Your task to perform on an android device: Show me popular videos on Youtube Image 0: 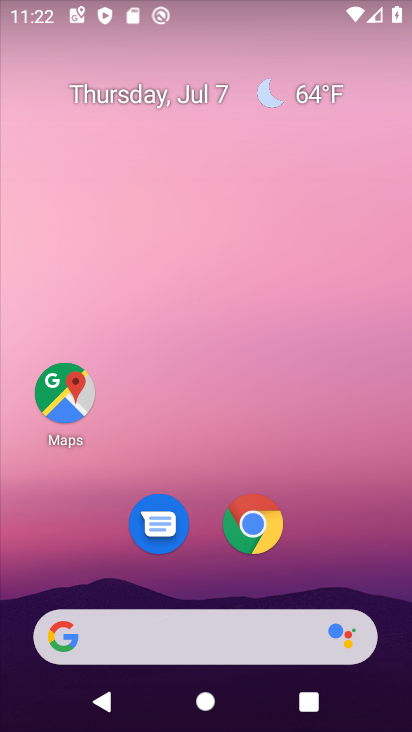
Step 0: drag from (331, 517) to (337, 34)
Your task to perform on an android device: Show me popular videos on Youtube Image 1: 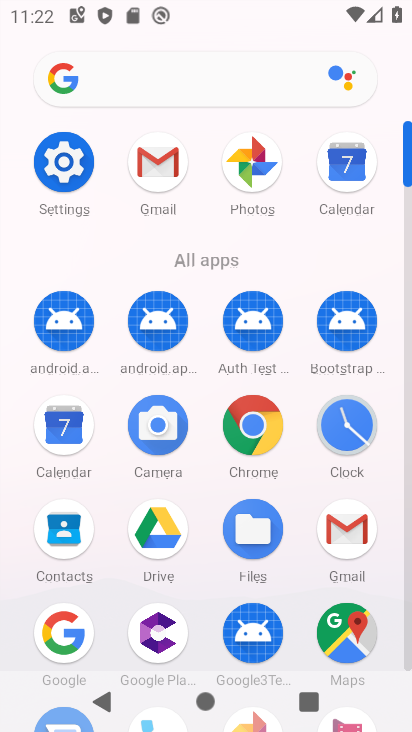
Step 1: drag from (202, 470) to (221, 102)
Your task to perform on an android device: Show me popular videos on Youtube Image 2: 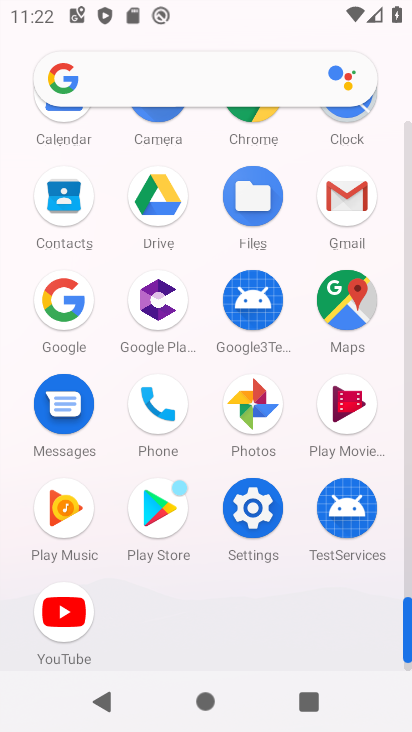
Step 2: click (80, 607)
Your task to perform on an android device: Show me popular videos on Youtube Image 3: 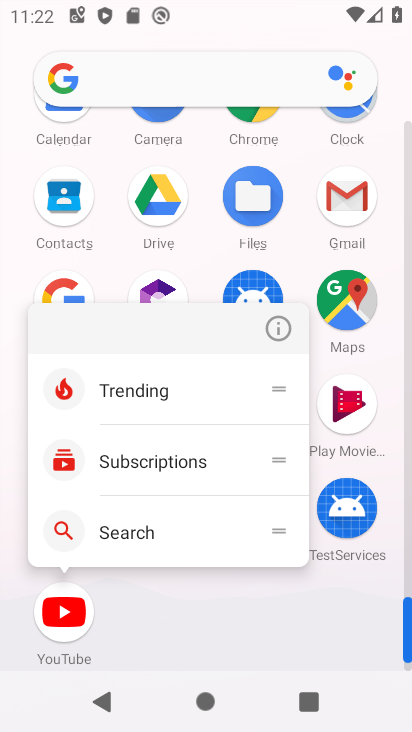
Step 3: click (76, 606)
Your task to perform on an android device: Show me popular videos on Youtube Image 4: 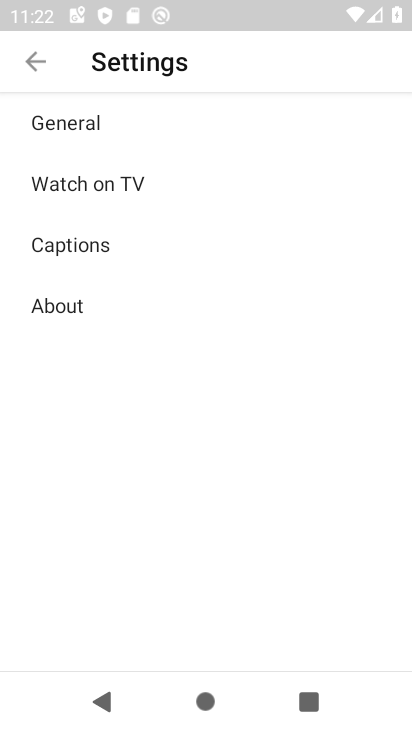
Step 4: click (42, 62)
Your task to perform on an android device: Show me popular videos on Youtube Image 5: 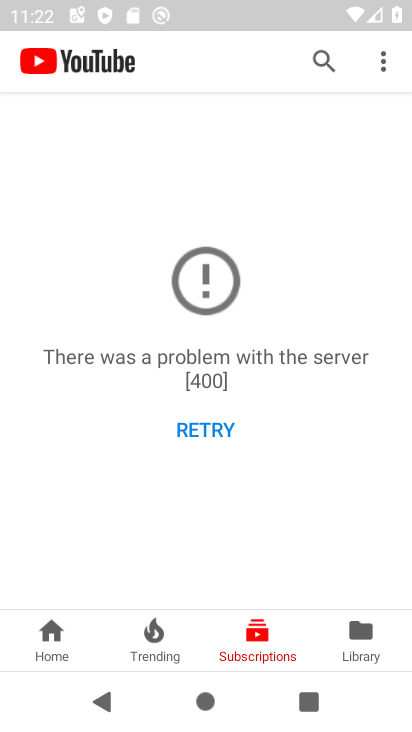
Step 5: click (47, 641)
Your task to perform on an android device: Show me popular videos on Youtube Image 6: 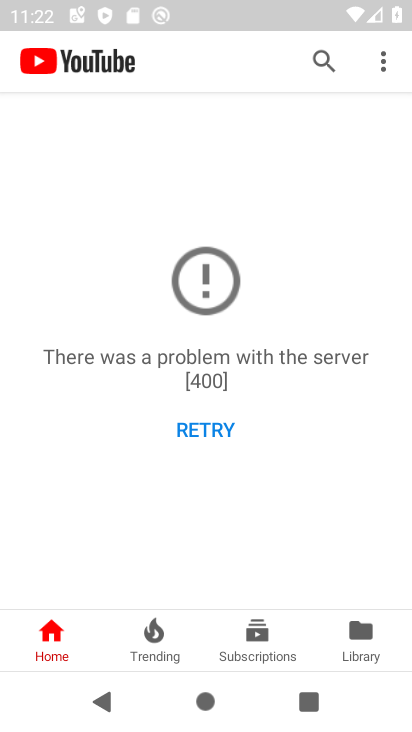
Step 6: task complete